Your task to perform on an android device: open chrome privacy settings Image 0: 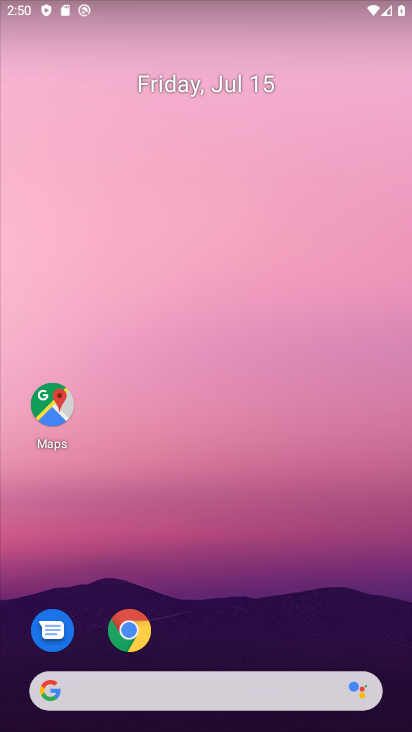
Step 0: click (126, 633)
Your task to perform on an android device: open chrome privacy settings Image 1: 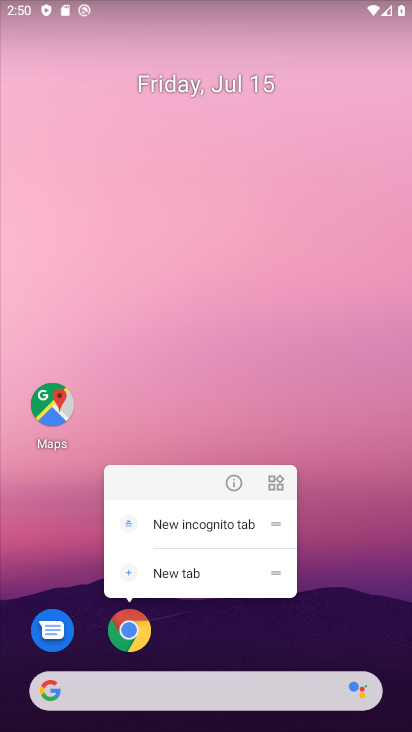
Step 1: click (127, 633)
Your task to perform on an android device: open chrome privacy settings Image 2: 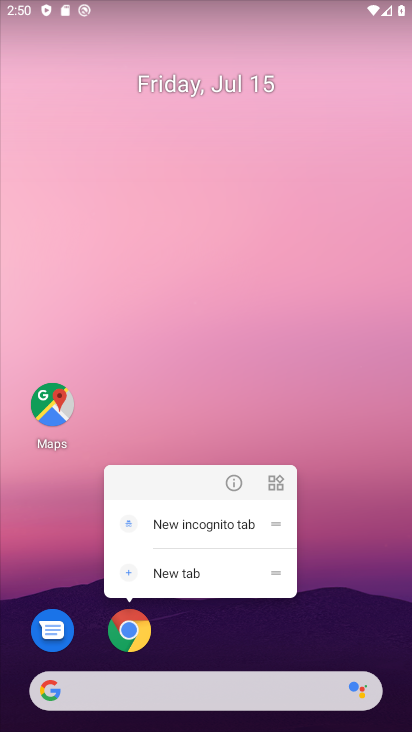
Step 2: click (127, 633)
Your task to perform on an android device: open chrome privacy settings Image 3: 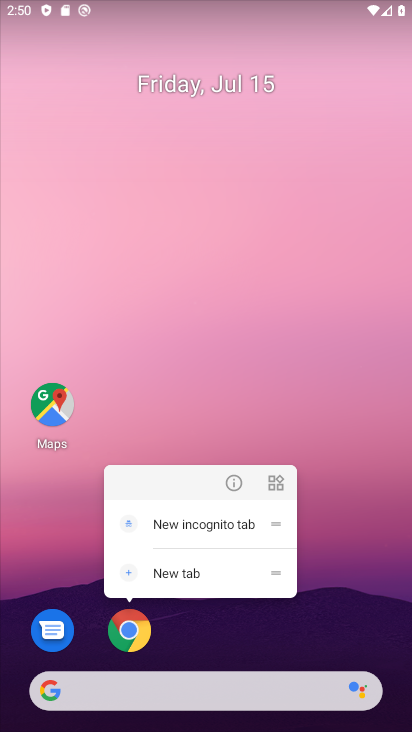
Step 3: click (127, 633)
Your task to perform on an android device: open chrome privacy settings Image 4: 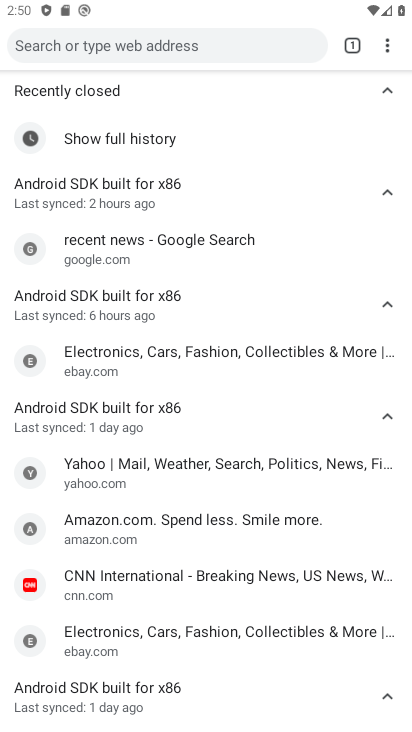
Step 4: click (384, 40)
Your task to perform on an android device: open chrome privacy settings Image 5: 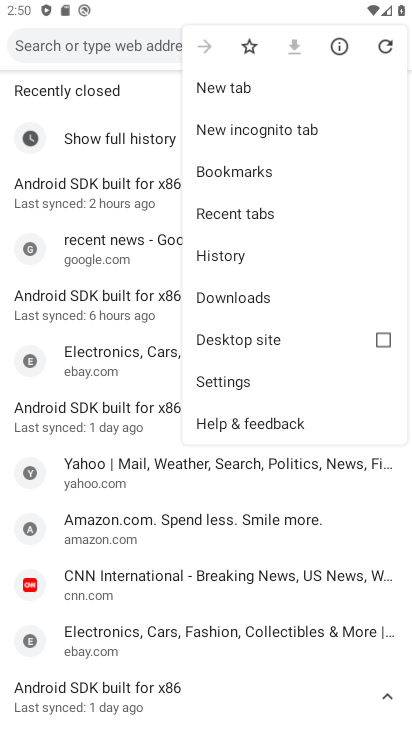
Step 5: click (244, 382)
Your task to perform on an android device: open chrome privacy settings Image 6: 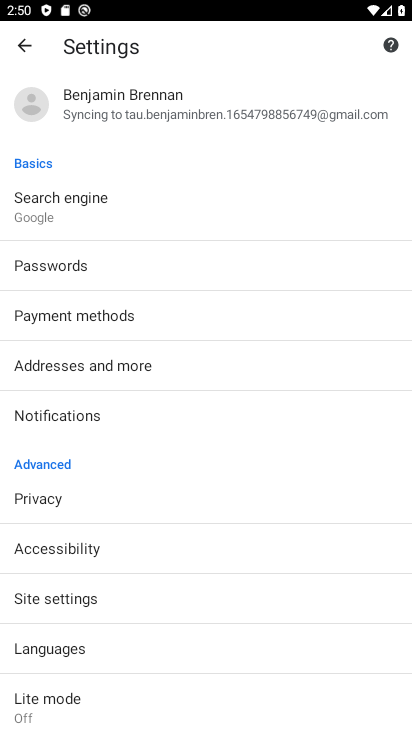
Step 6: click (42, 493)
Your task to perform on an android device: open chrome privacy settings Image 7: 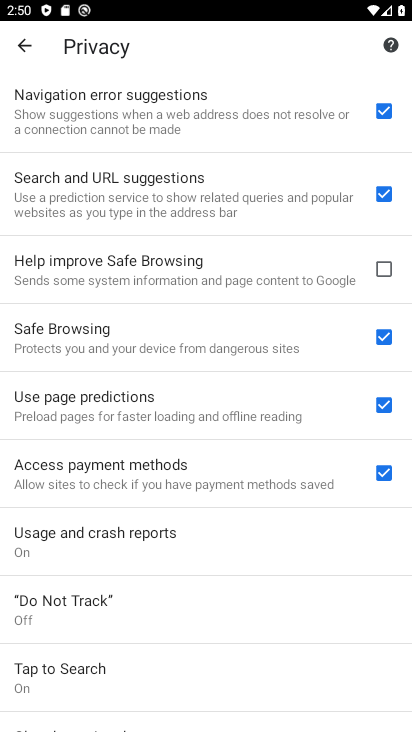
Step 7: task complete